Your task to perform on an android device: Go to Maps Image 0: 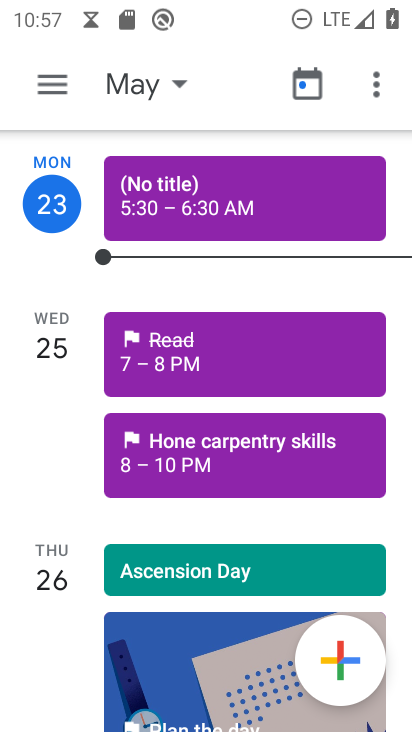
Step 0: press home button
Your task to perform on an android device: Go to Maps Image 1: 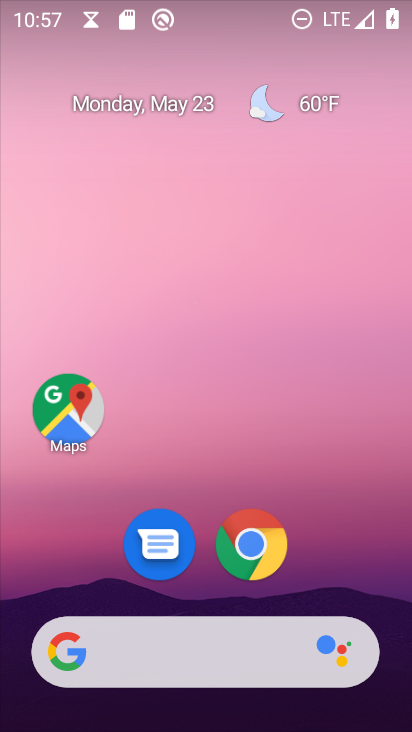
Step 1: click (88, 398)
Your task to perform on an android device: Go to Maps Image 2: 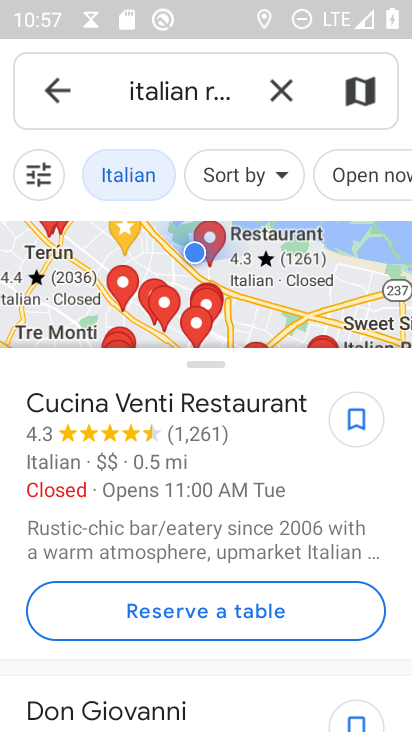
Step 2: click (285, 85)
Your task to perform on an android device: Go to Maps Image 3: 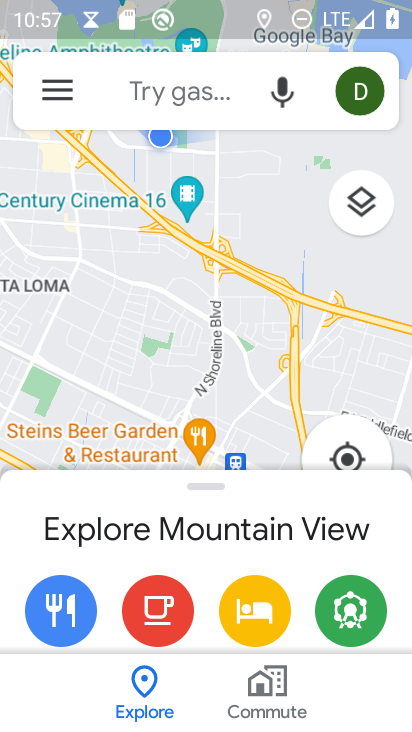
Step 3: task complete